Your task to perform on an android device: Show me the alarms in the clock app Image 0: 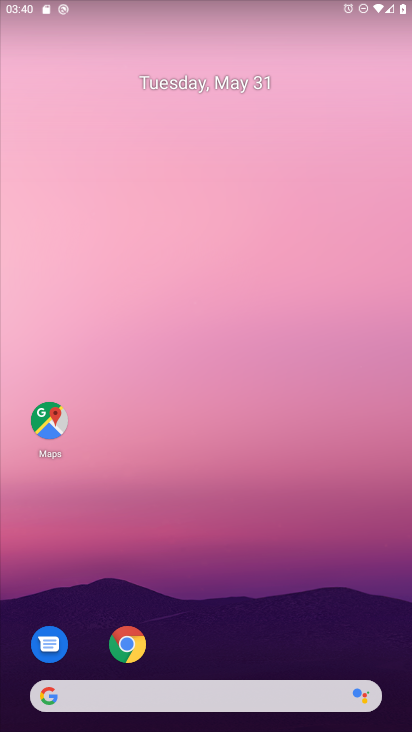
Step 0: press home button
Your task to perform on an android device: Show me the alarms in the clock app Image 1: 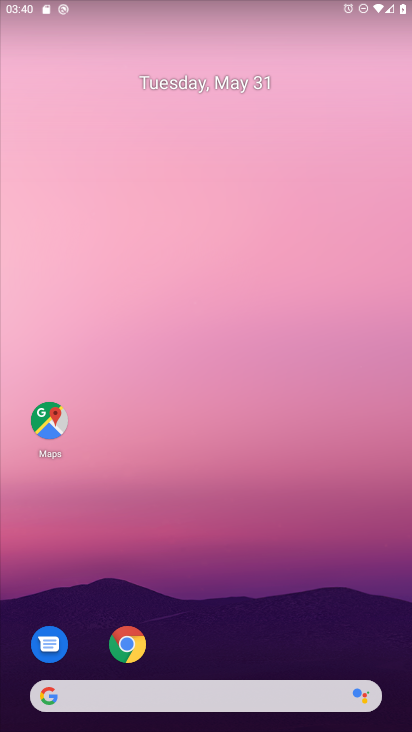
Step 1: drag from (308, 621) to (317, 117)
Your task to perform on an android device: Show me the alarms in the clock app Image 2: 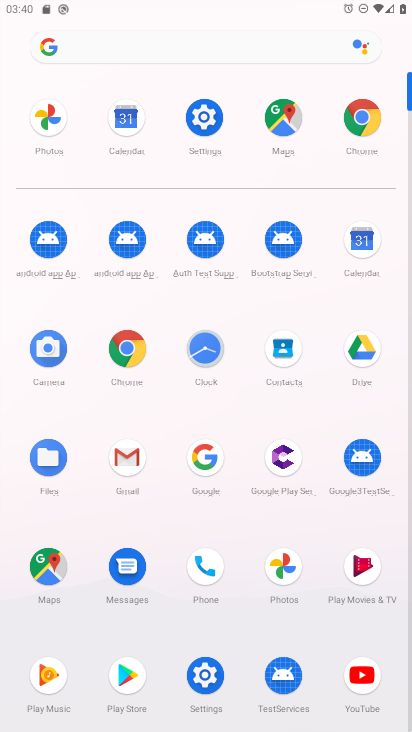
Step 2: click (200, 354)
Your task to perform on an android device: Show me the alarms in the clock app Image 3: 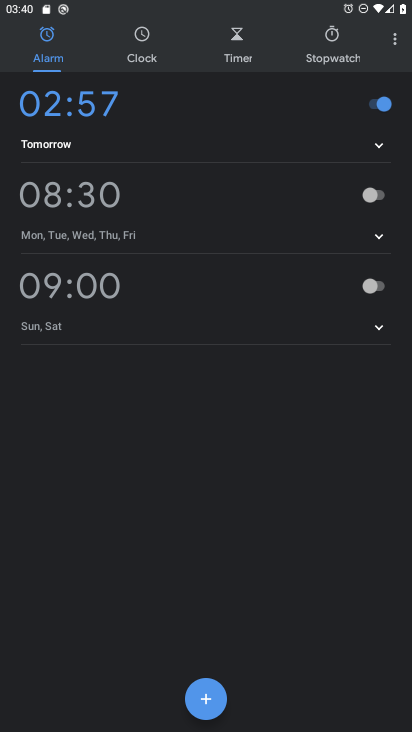
Step 3: click (399, 38)
Your task to perform on an android device: Show me the alarms in the clock app Image 4: 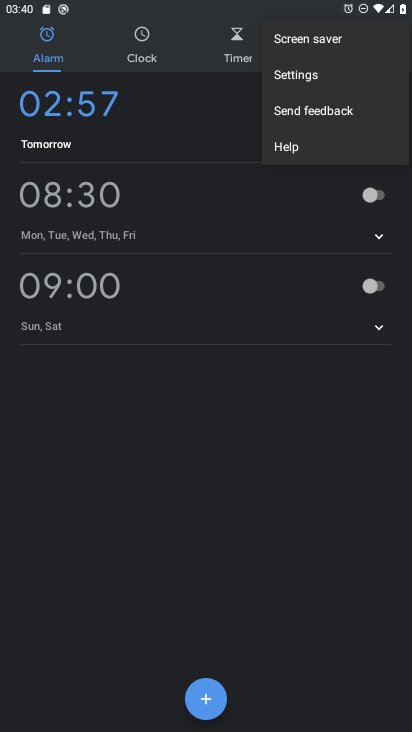
Step 4: click (165, 620)
Your task to perform on an android device: Show me the alarms in the clock app Image 5: 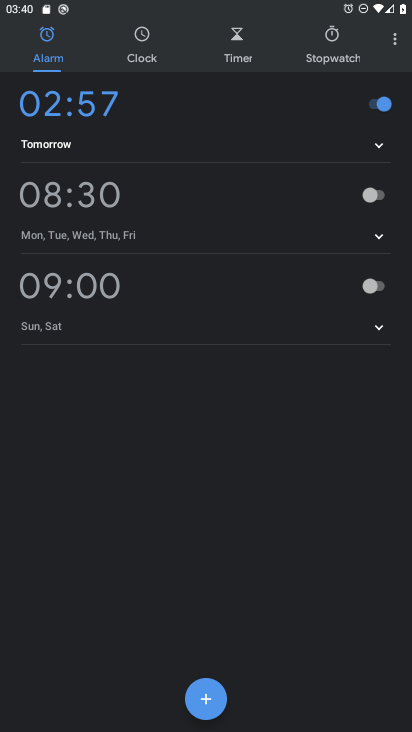
Step 5: task complete